Your task to perform on an android device: open app "Walmart Shopping & Grocery" (install if not already installed) Image 0: 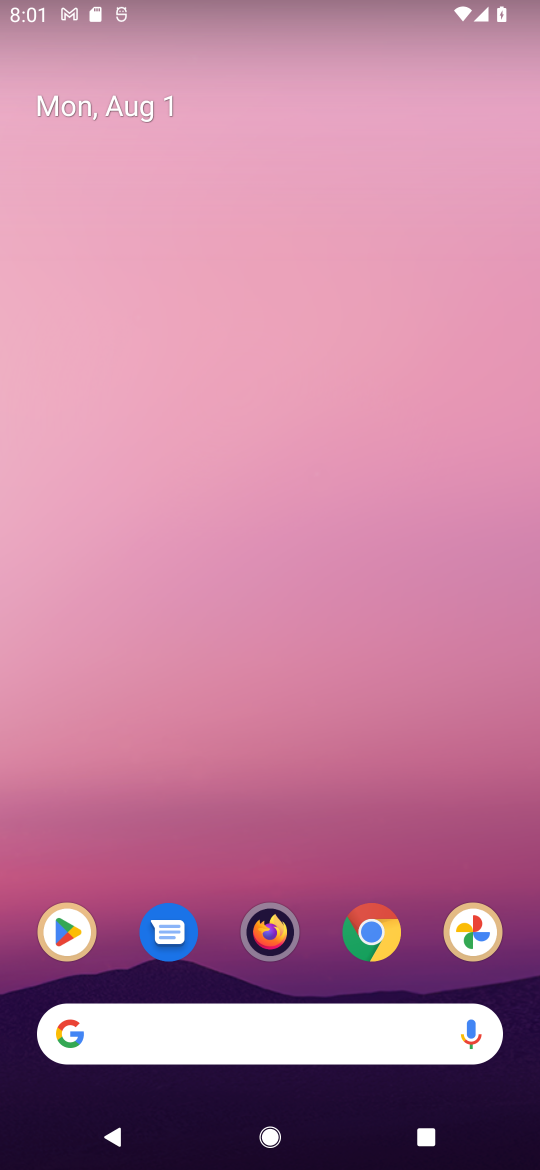
Step 0: click (85, 941)
Your task to perform on an android device: open app "Walmart Shopping & Grocery" (install if not already installed) Image 1: 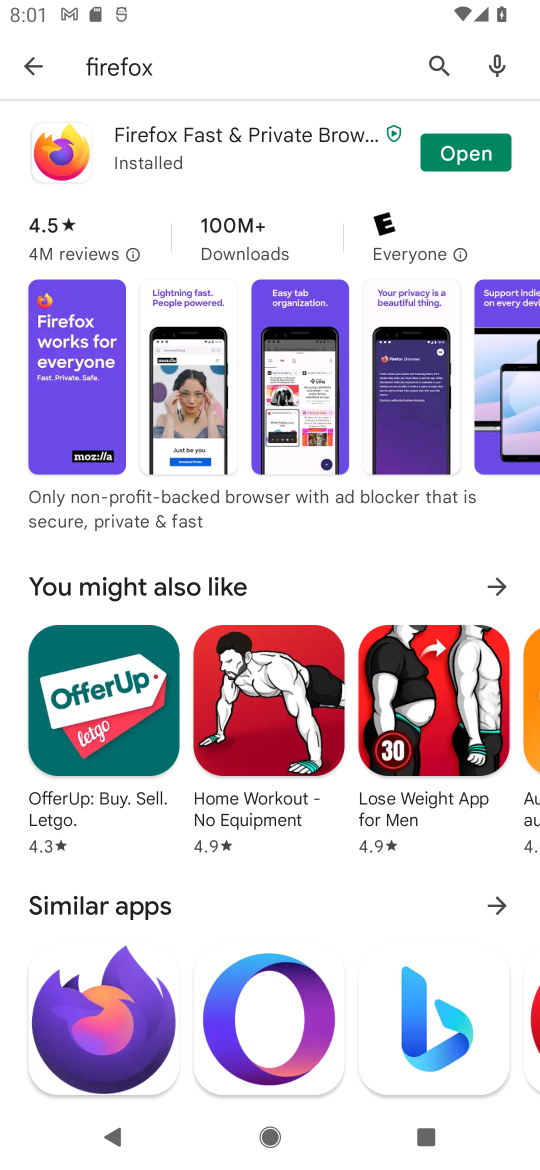
Step 1: click (190, 67)
Your task to perform on an android device: open app "Walmart Shopping & Grocery" (install if not already installed) Image 2: 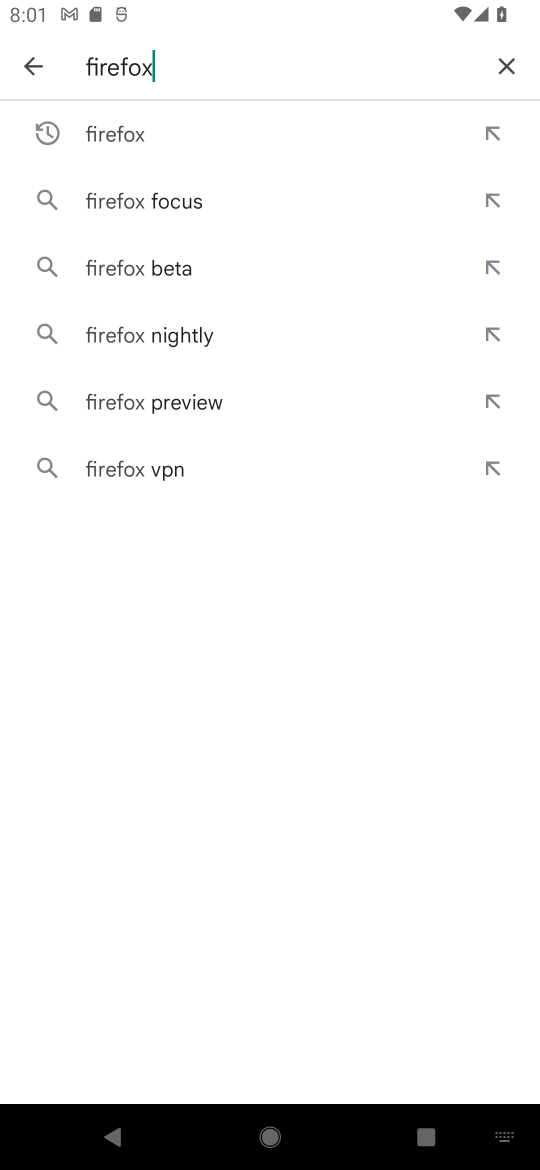
Step 2: click (503, 61)
Your task to perform on an android device: open app "Walmart Shopping & Grocery" (install if not already installed) Image 3: 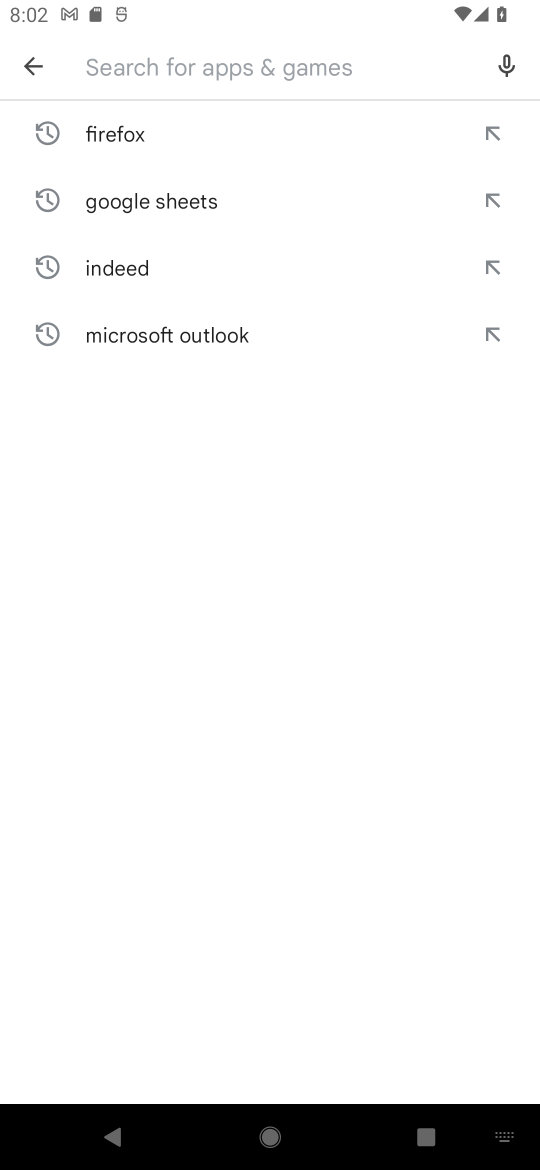
Step 3: type "walmart"
Your task to perform on an android device: open app "Walmart Shopping & Grocery" (install if not already installed) Image 4: 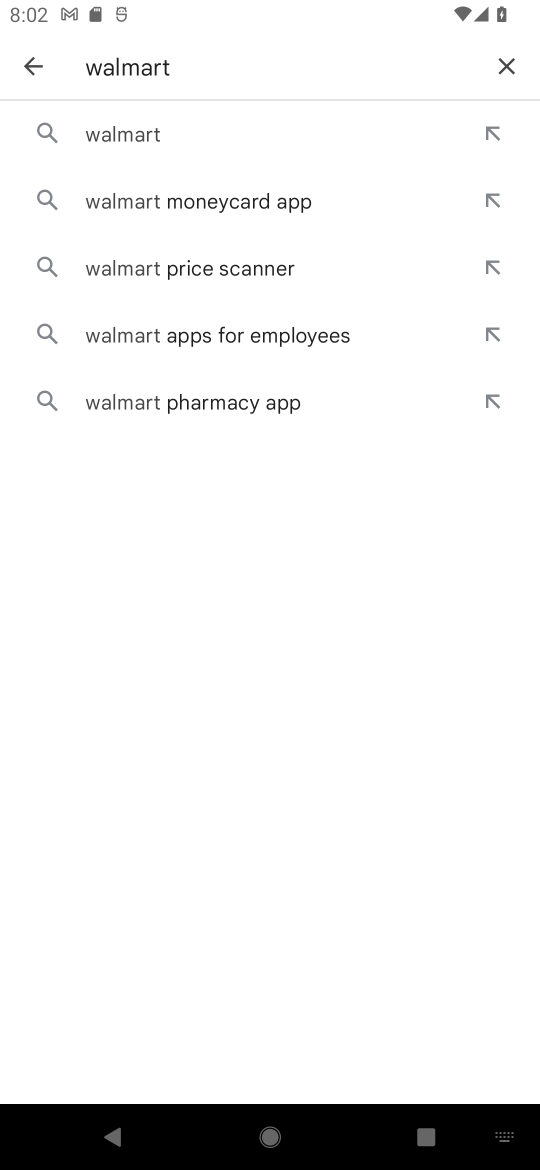
Step 4: click (165, 144)
Your task to perform on an android device: open app "Walmart Shopping & Grocery" (install if not already installed) Image 5: 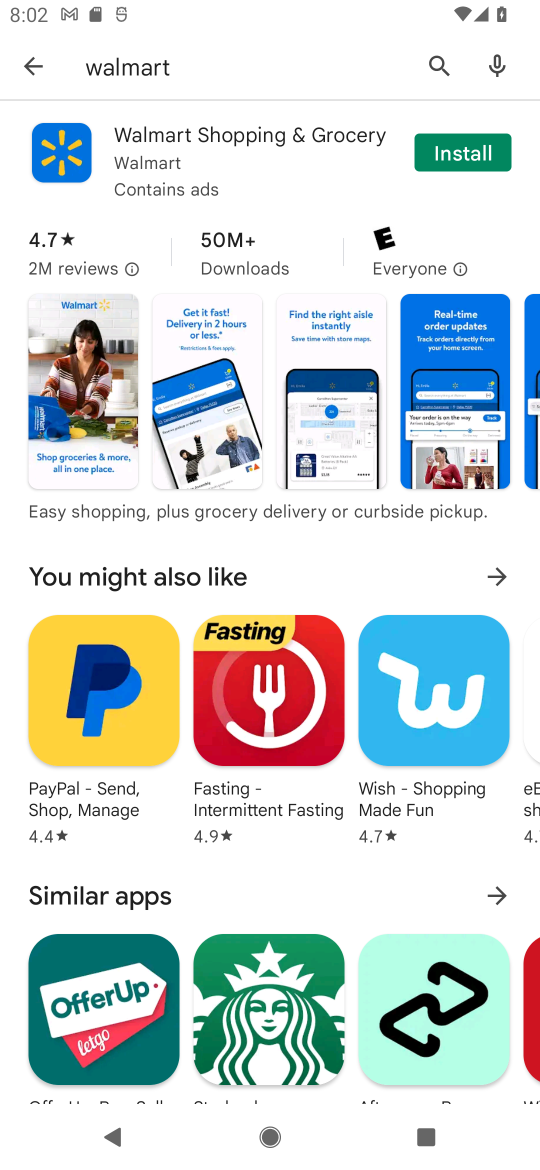
Step 5: click (473, 123)
Your task to perform on an android device: open app "Walmart Shopping & Grocery" (install if not already installed) Image 6: 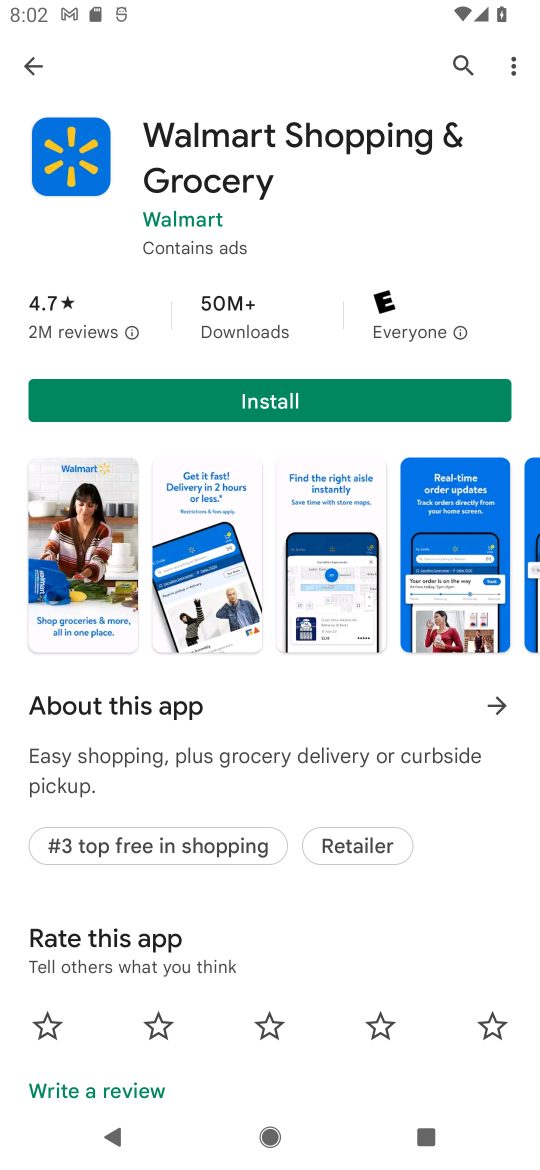
Step 6: click (274, 400)
Your task to perform on an android device: open app "Walmart Shopping & Grocery" (install if not already installed) Image 7: 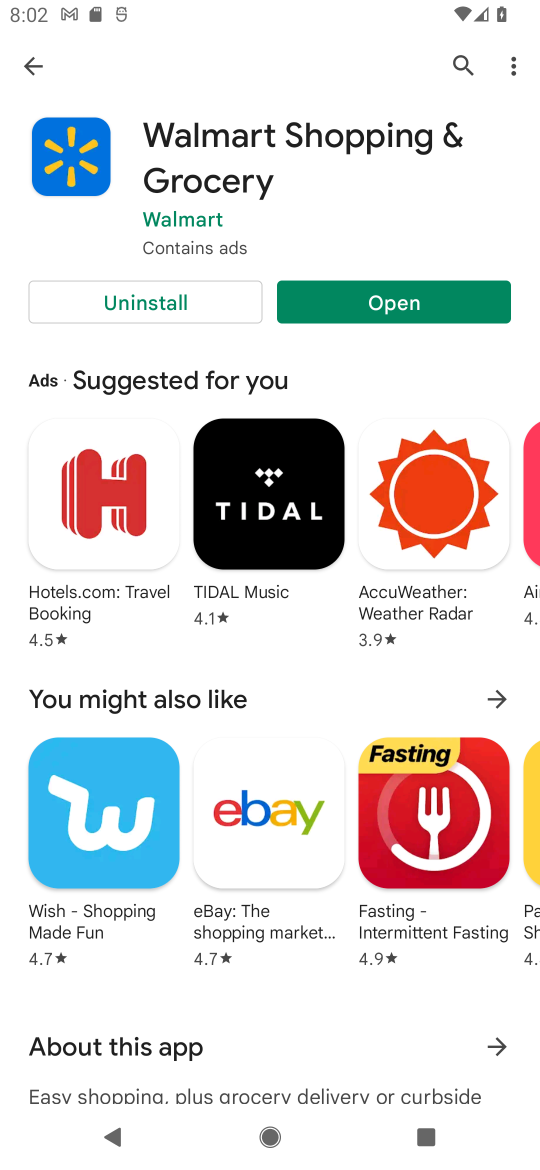
Step 7: click (398, 298)
Your task to perform on an android device: open app "Walmart Shopping & Grocery" (install if not already installed) Image 8: 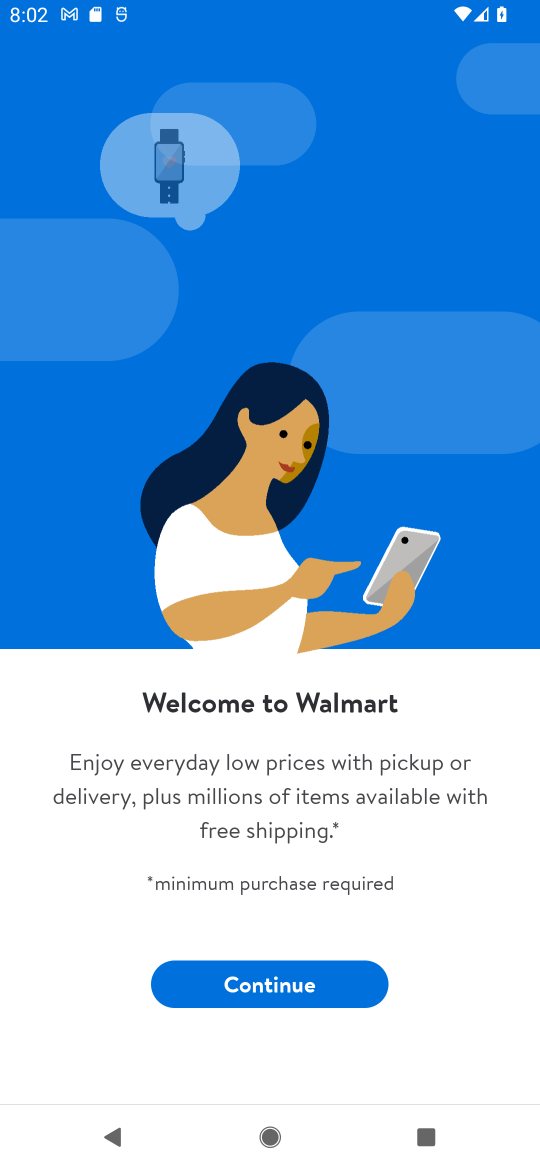
Step 8: click (304, 980)
Your task to perform on an android device: open app "Walmart Shopping & Grocery" (install if not already installed) Image 9: 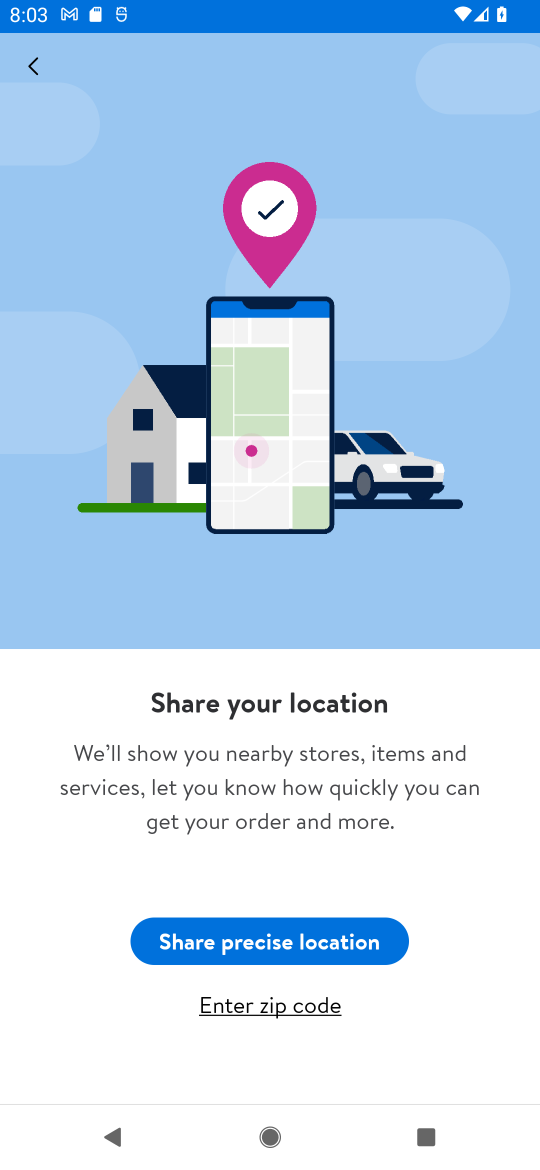
Step 9: task complete